Your task to perform on an android device: turn on location history Image 0: 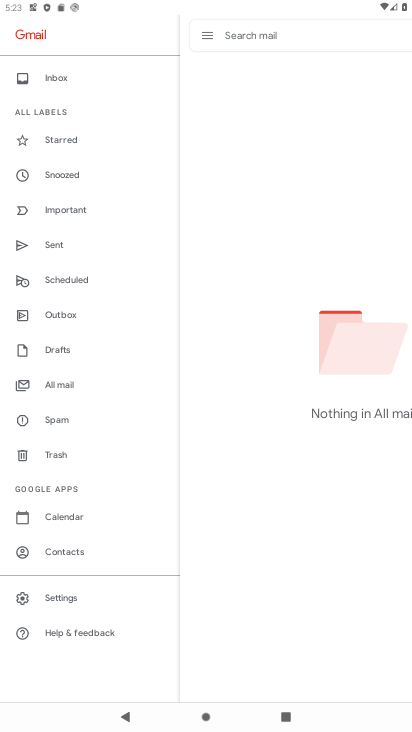
Step 0: press home button
Your task to perform on an android device: turn on location history Image 1: 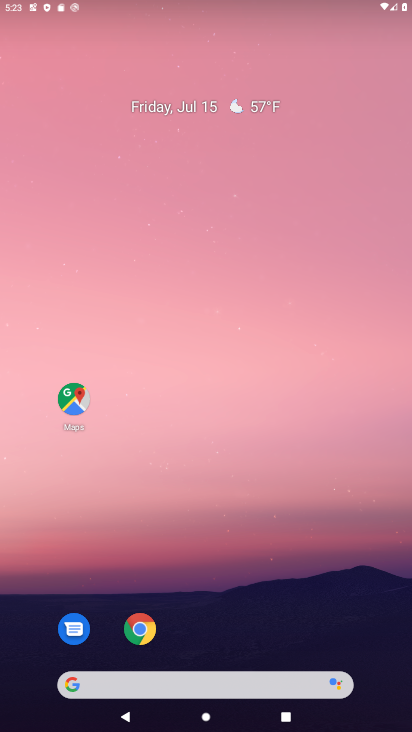
Step 1: drag from (281, 627) to (276, 124)
Your task to perform on an android device: turn on location history Image 2: 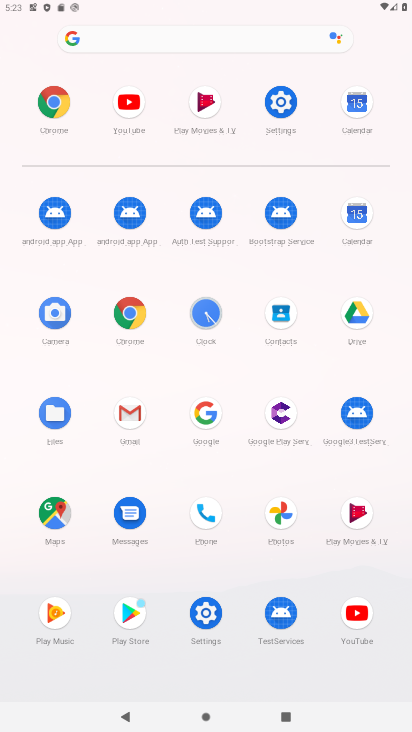
Step 2: click (286, 107)
Your task to perform on an android device: turn on location history Image 3: 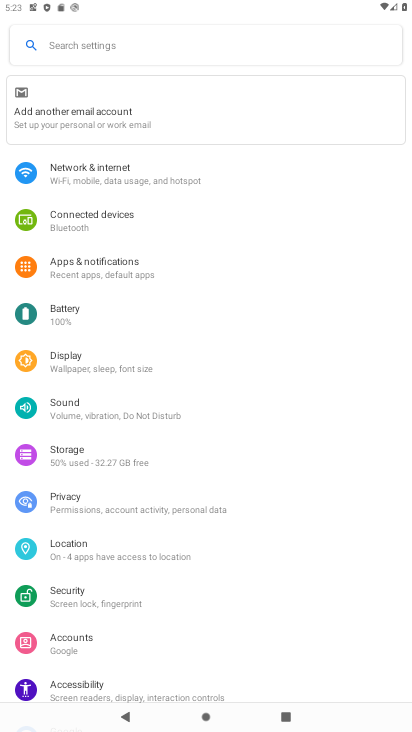
Step 3: click (78, 536)
Your task to perform on an android device: turn on location history Image 4: 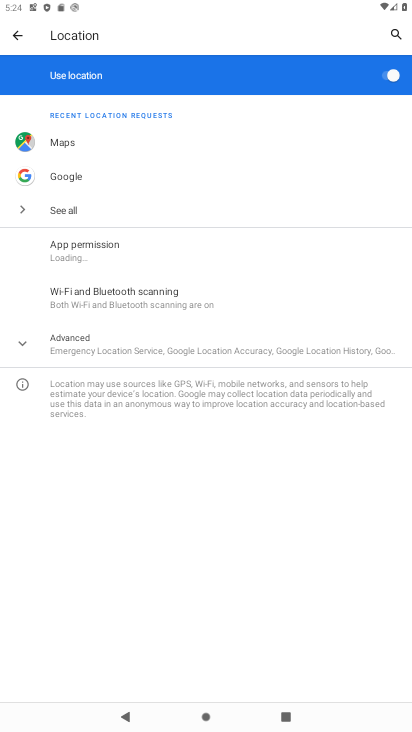
Step 4: click (26, 338)
Your task to perform on an android device: turn on location history Image 5: 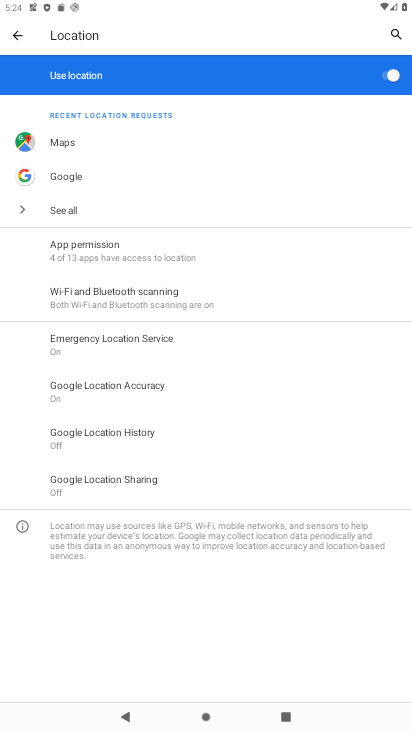
Step 5: click (137, 384)
Your task to perform on an android device: turn on location history Image 6: 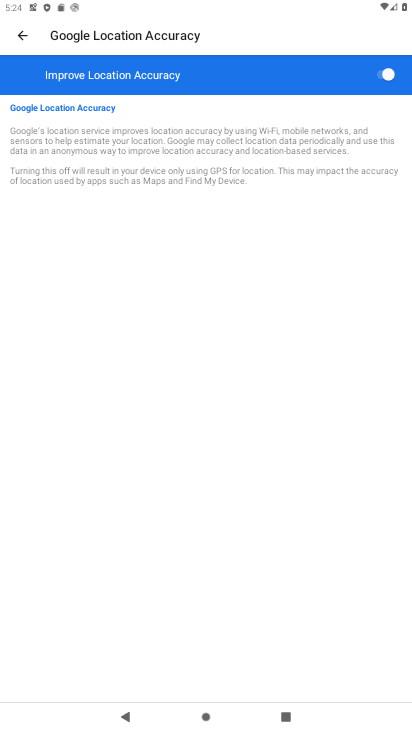
Step 6: task complete